Your task to perform on an android device: toggle notification dots Image 0: 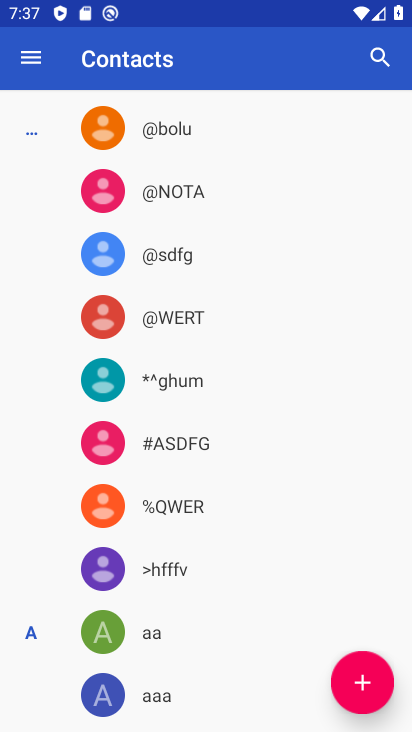
Step 0: press home button
Your task to perform on an android device: toggle notification dots Image 1: 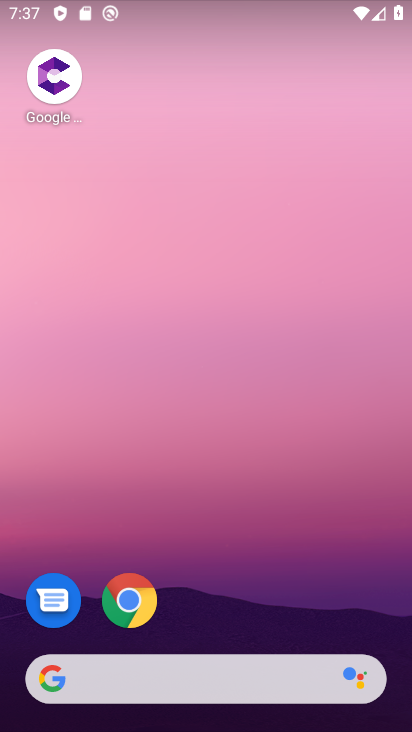
Step 1: drag from (285, 601) to (244, 144)
Your task to perform on an android device: toggle notification dots Image 2: 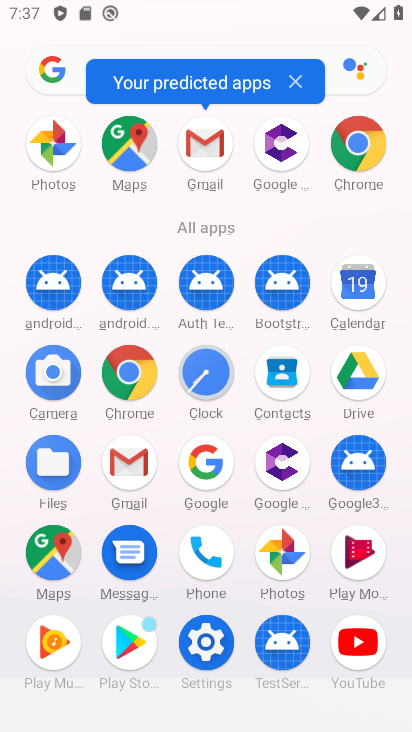
Step 2: click (193, 634)
Your task to perform on an android device: toggle notification dots Image 3: 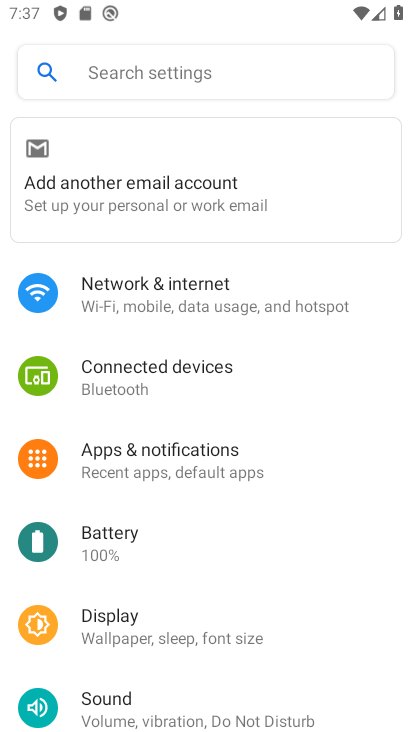
Step 3: click (283, 465)
Your task to perform on an android device: toggle notification dots Image 4: 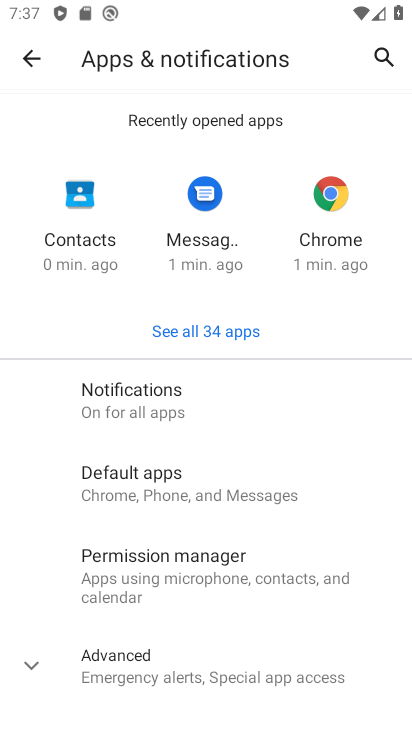
Step 4: click (199, 425)
Your task to perform on an android device: toggle notification dots Image 5: 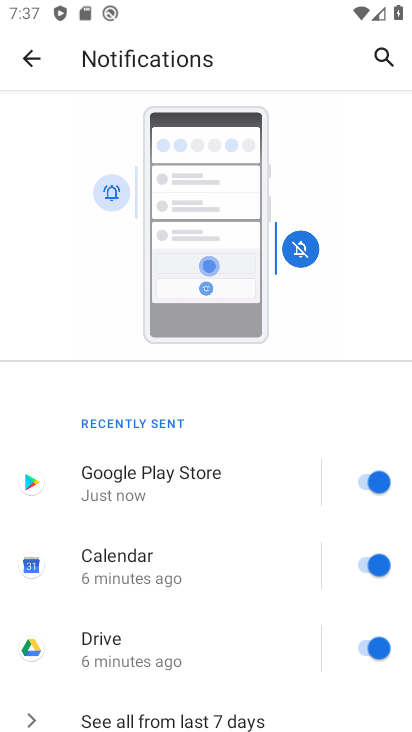
Step 5: drag from (226, 683) to (322, 384)
Your task to perform on an android device: toggle notification dots Image 6: 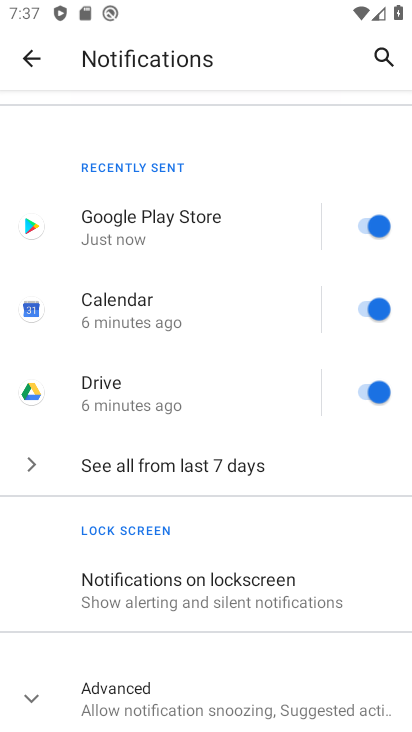
Step 6: click (172, 700)
Your task to perform on an android device: toggle notification dots Image 7: 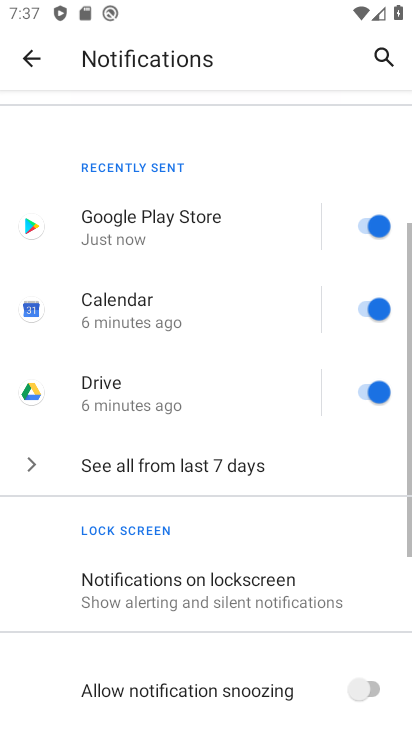
Step 7: drag from (243, 659) to (315, 166)
Your task to perform on an android device: toggle notification dots Image 8: 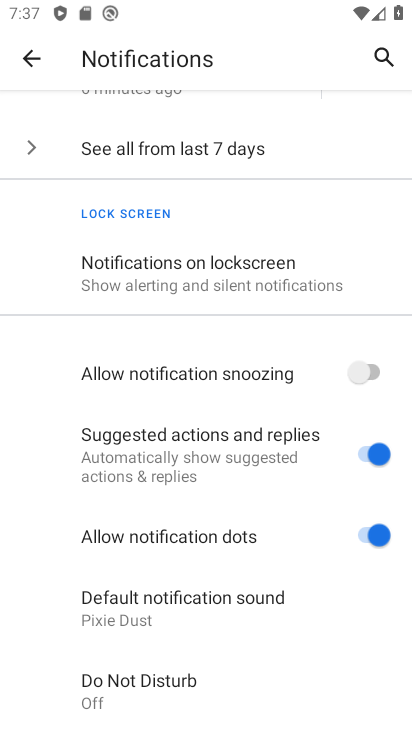
Step 8: click (312, 535)
Your task to perform on an android device: toggle notification dots Image 9: 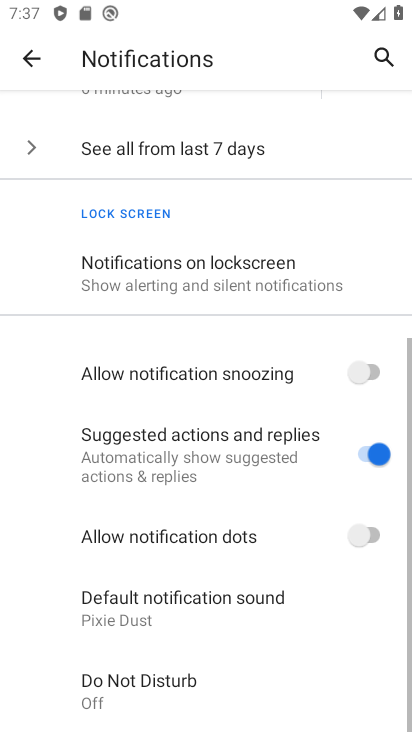
Step 9: task complete